Your task to perform on an android device: see tabs open on other devices in the chrome app Image 0: 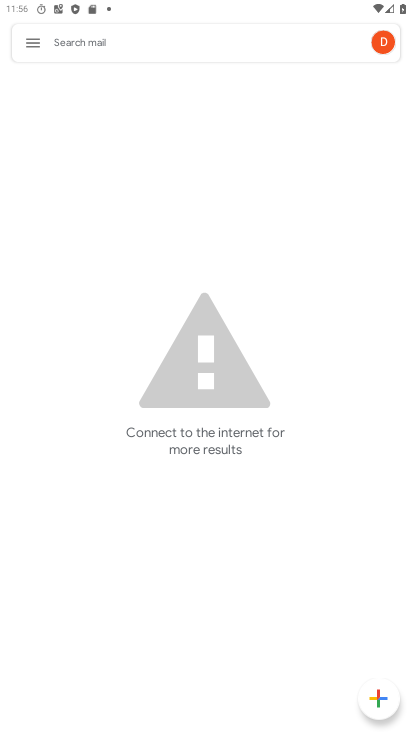
Step 0: press home button
Your task to perform on an android device: see tabs open on other devices in the chrome app Image 1: 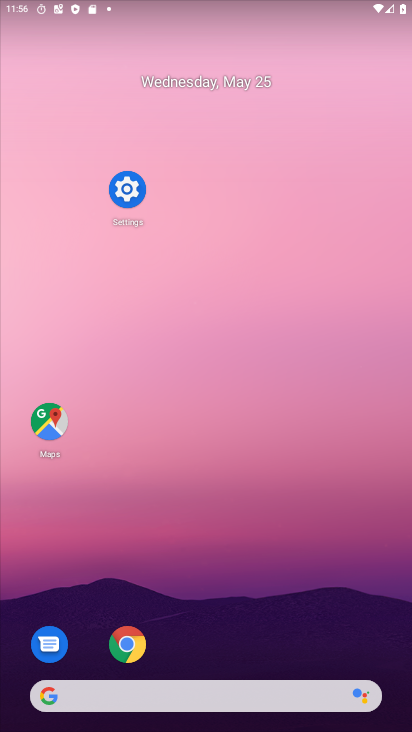
Step 1: click (129, 646)
Your task to perform on an android device: see tabs open on other devices in the chrome app Image 2: 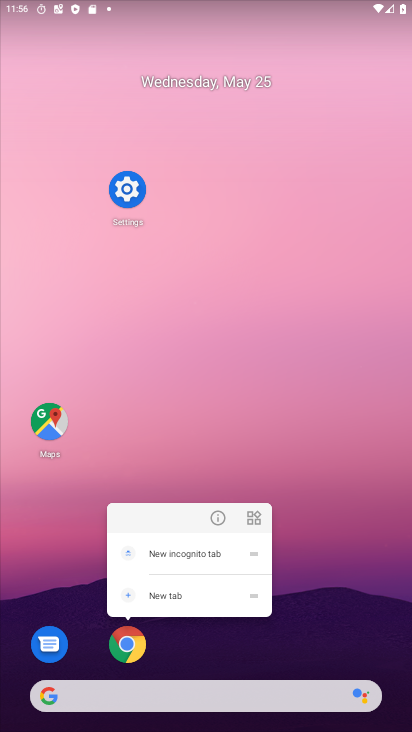
Step 2: click (129, 646)
Your task to perform on an android device: see tabs open on other devices in the chrome app Image 3: 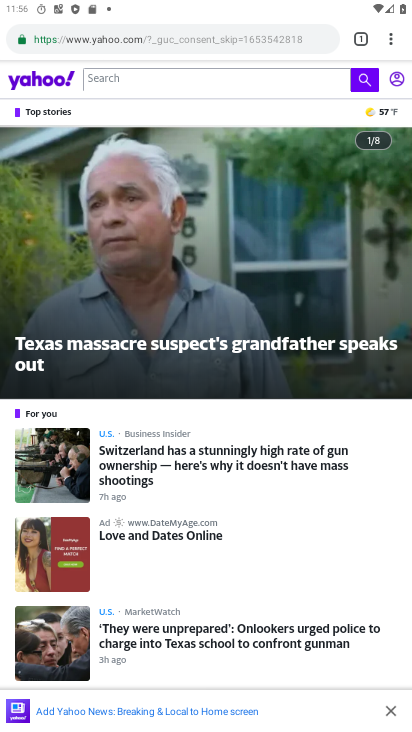
Step 3: click (361, 36)
Your task to perform on an android device: see tabs open on other devices in the chrome app Image 4: 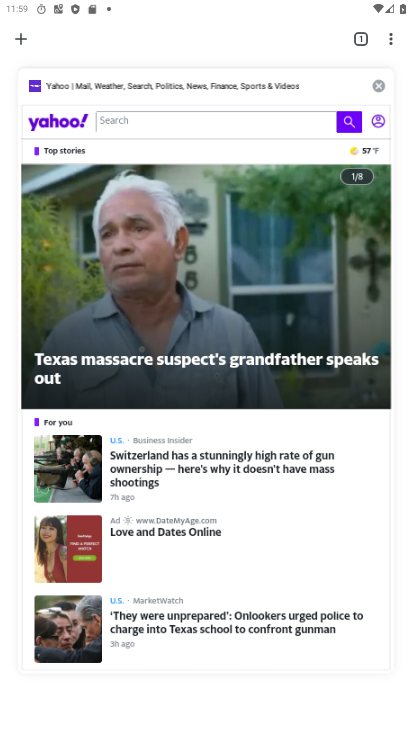
Step 4: task complete